Your task to perform on an android device: Open Yahoo.com Image 0: 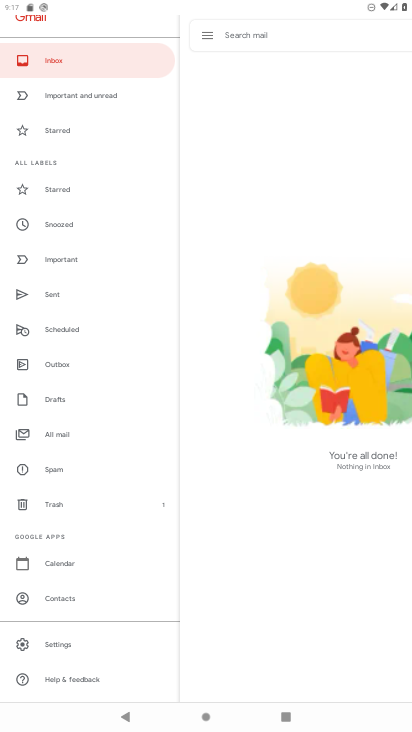
Step 0: press home button
Your task to perform on an android device: Open Yahoo.com Image 1: 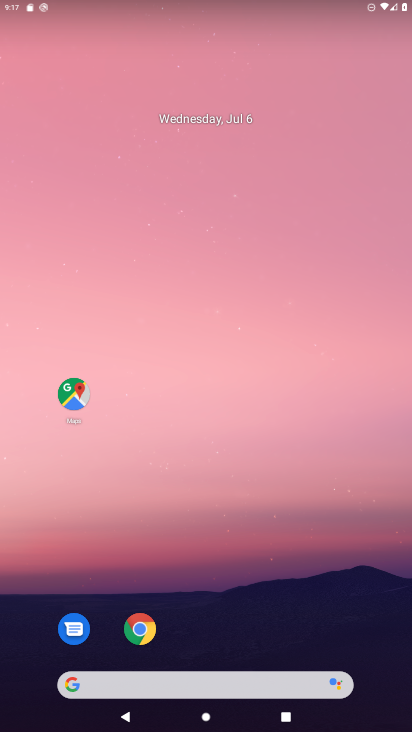
Step 1: drag from (296, 603) to (253, 18)
Your task to perform on an android device: Open Yahoo.com Image 2: 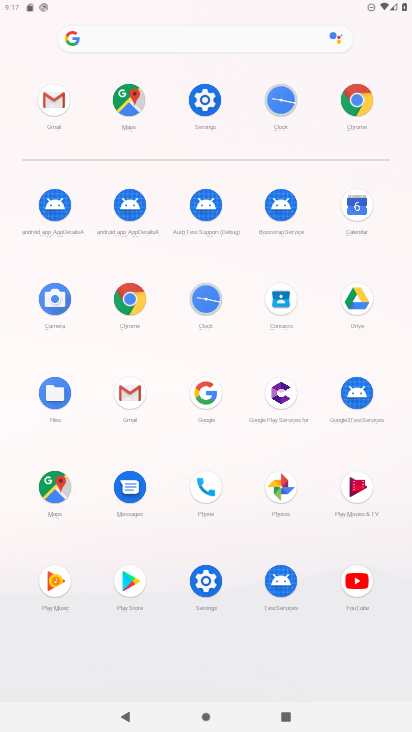
Step 2: click (132, 296)
Your task to perform on an android device: Open Yahoo.com Image 3: 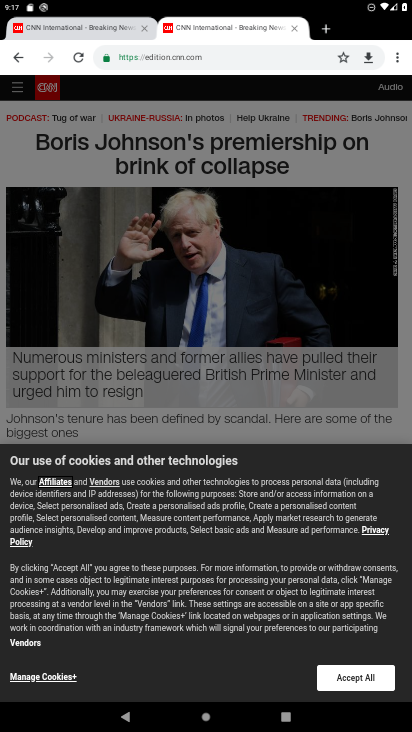
Step 3: press back button
Your task to perform on an android device: Open Yahoo.com Image 4: 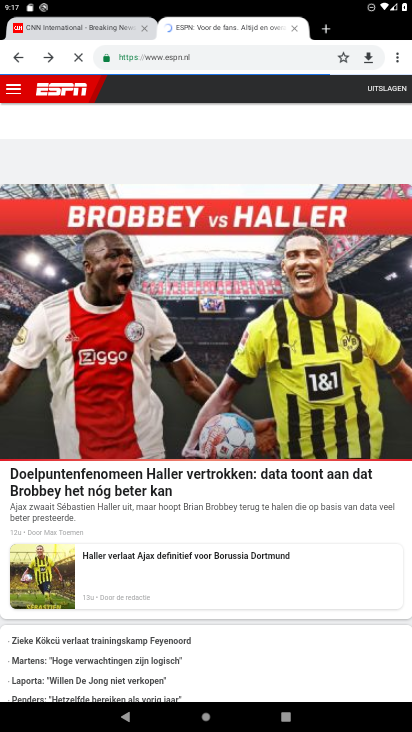
Step 4: click (253, 62)
Your task to perform on an android device: Open Yahoo.com Image 5: 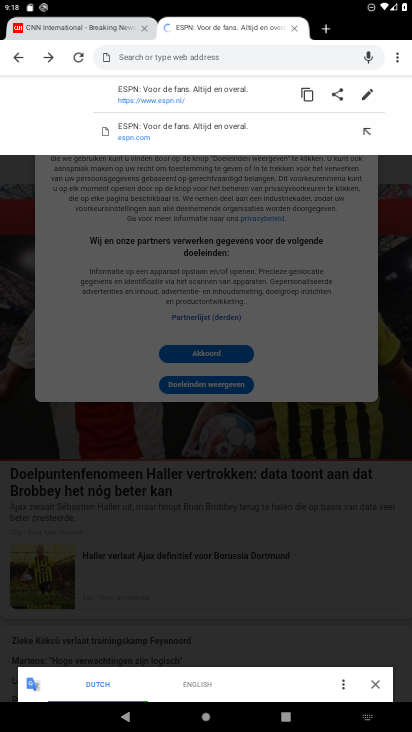
Step 5: type "yahoo.com"
Your task to perform on an android device: Open Yahoo.com Image 6: 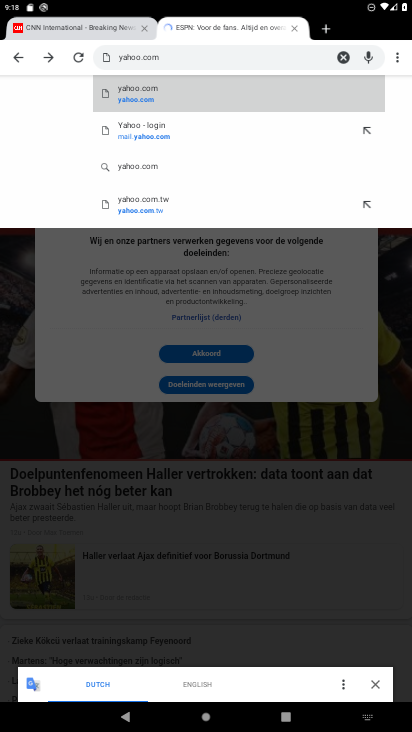
Step 6: click (146, 89)
Your task to perform on an android device: Open Yahoo.com Image 7: 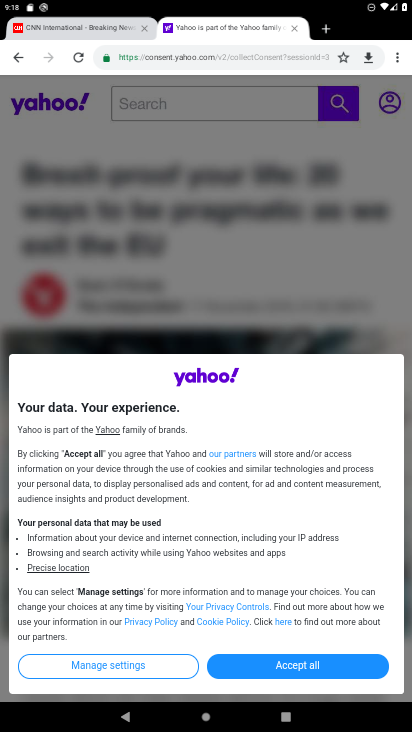
Step 7: task complete